Your task to perform on an android device: Open calendar and show me the first week of next month Image 0: 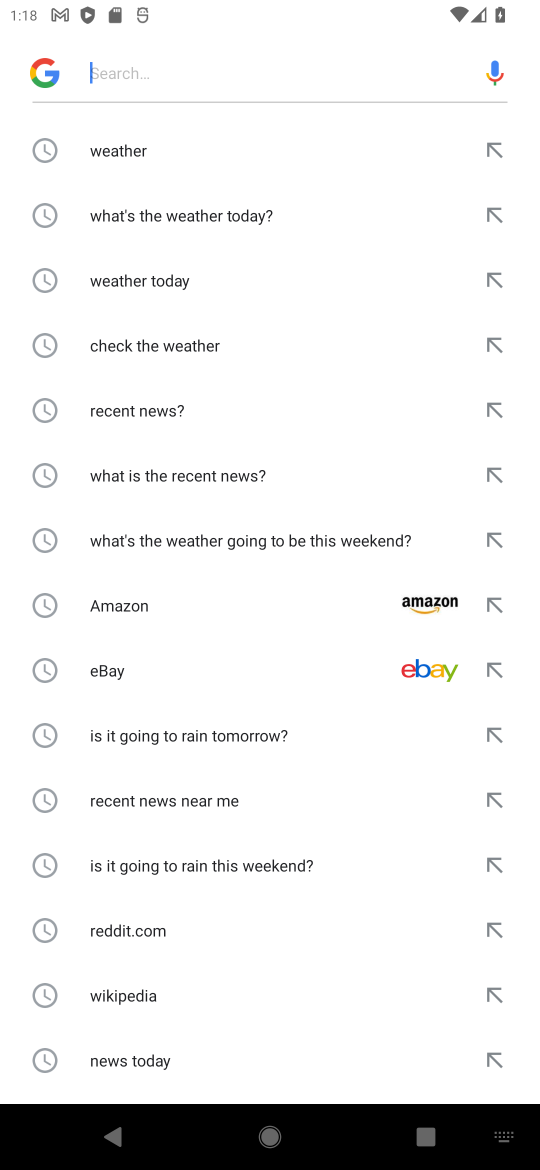
Step 0: press home button
Your task to perform on an android device: Open calendar and show me the first week of next month Image 1: 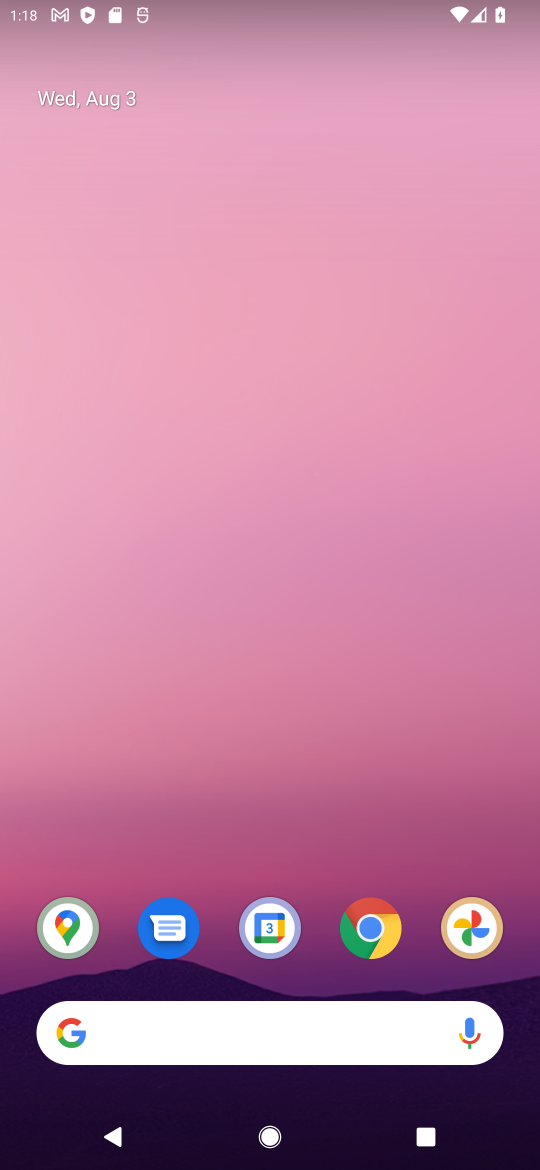
Step 1: drag from (369, 832) to (253, 206)
Your task to perform on an android device: Open calendar and show me the first week of next month Image 2: 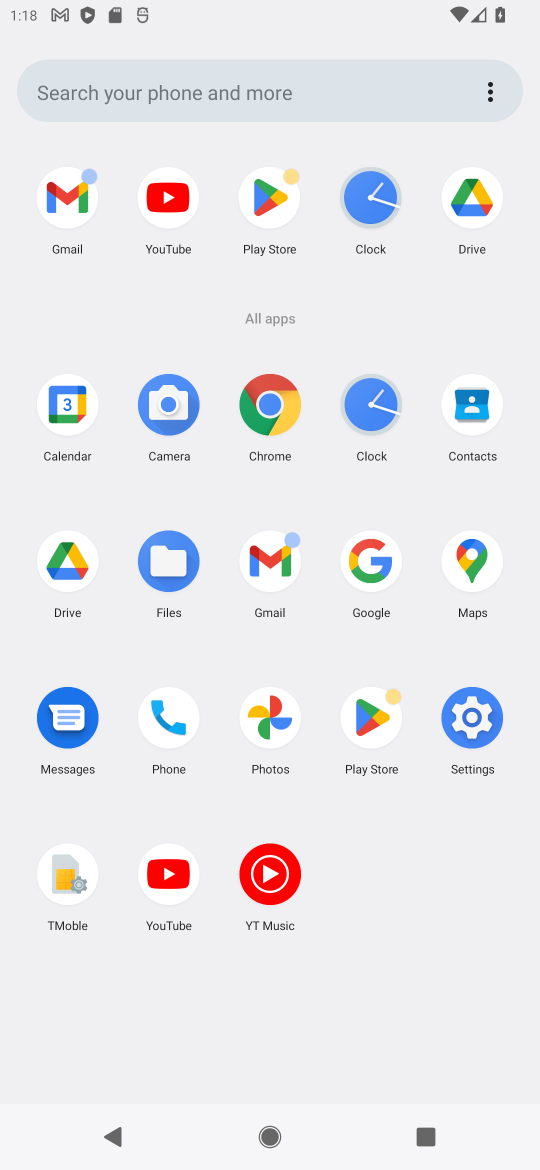
Step 2: click (57, 417)
Your task to perform on an android device: Open calendar and show me the first week of next month Image 3: 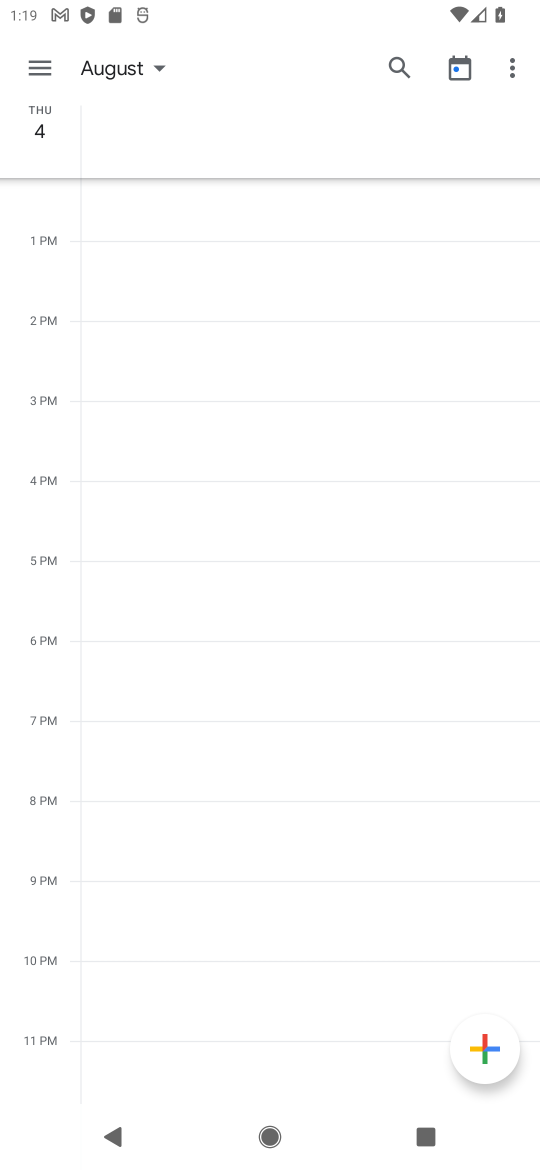
Step 3: click (38, 65)
Your task to perform on an android device: Open calendar and show me the first week of next month Image 4: 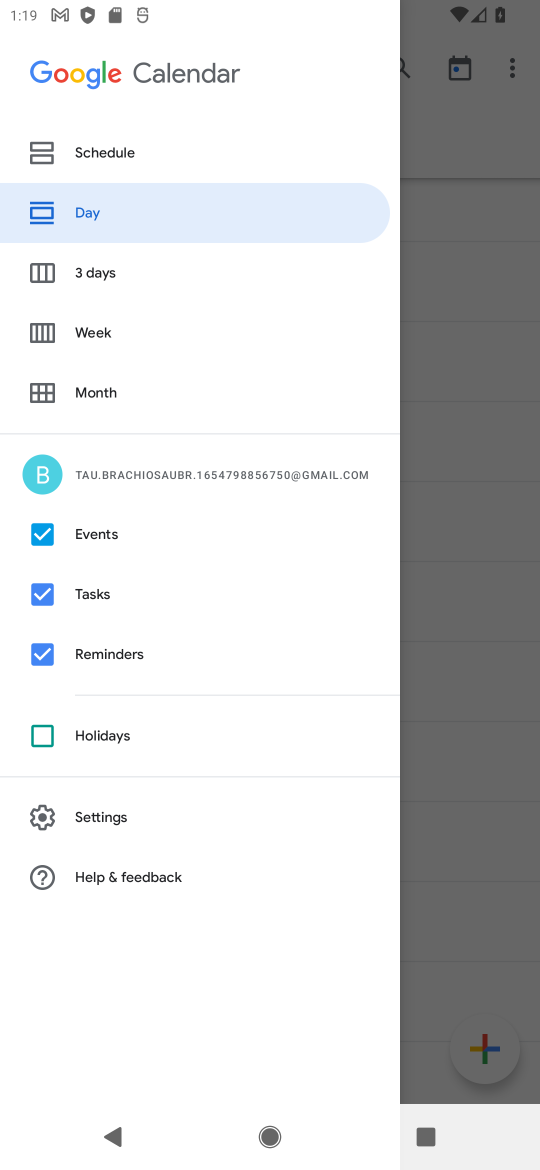
Step 4: click (143, 325)
Your task to perform on an android device: Open calendar and show me the first week of next month Image 5: 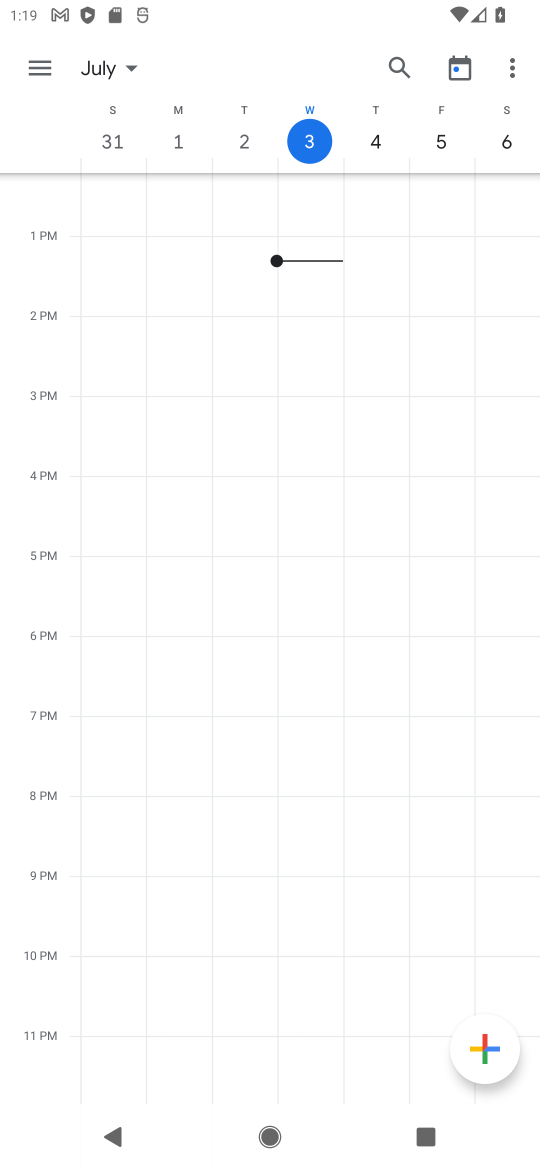
Step 5: click (130, 64)
Your task to perform on an android device: Open calendar and show me the first week of next month Image 6: 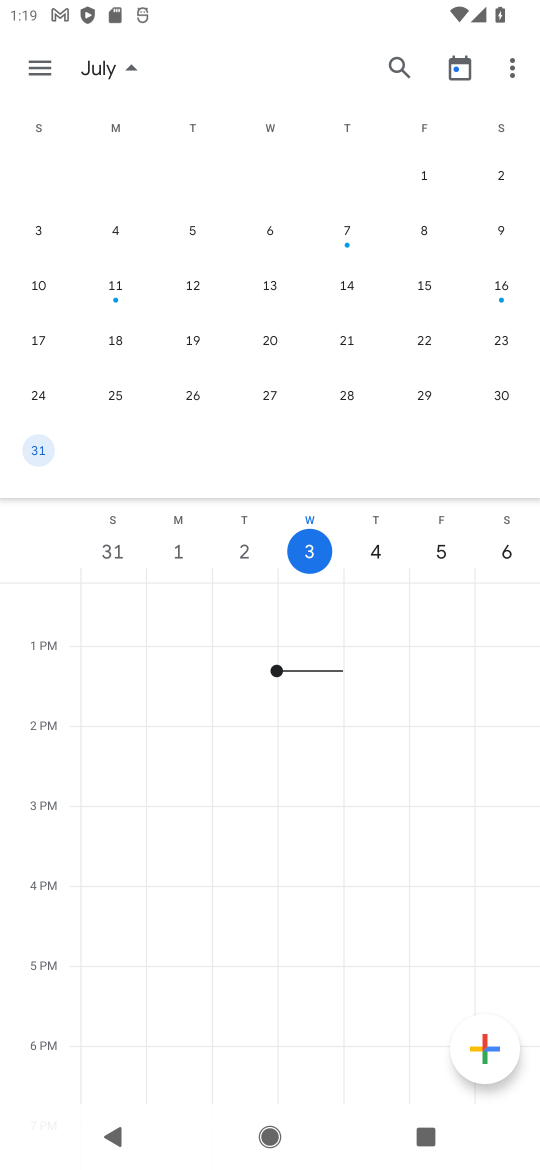
Step 6: drag from (460, 374) to (14, 357)
Your task to perform on an android device: Open calendar and show me the first week of next month Image 7: 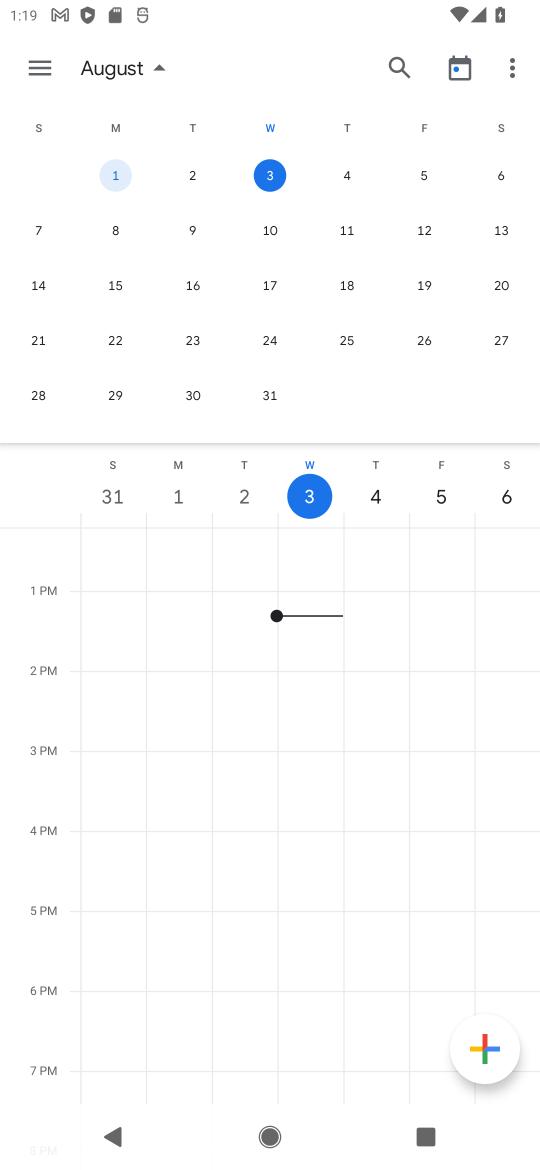
Step 7: drag from (509, 382) to (0, 385)
Your task to perform on an android device: Open calendar and show me the first week of next month Image 8: 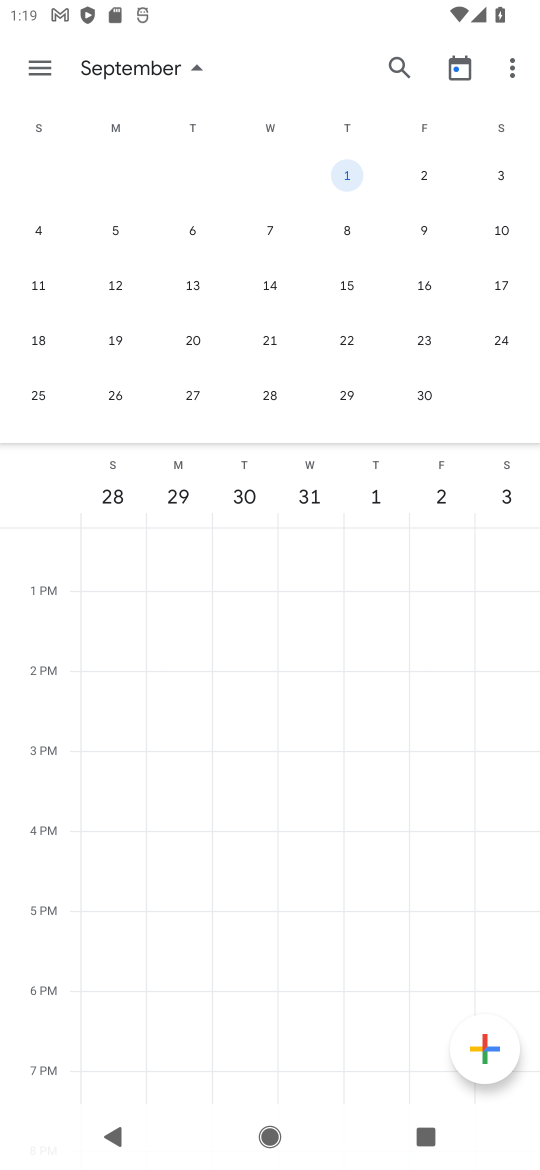
Step 8: click (281, 220)
Your task to perform on an android device: Open calendar and show me the first week of next month Image 9: 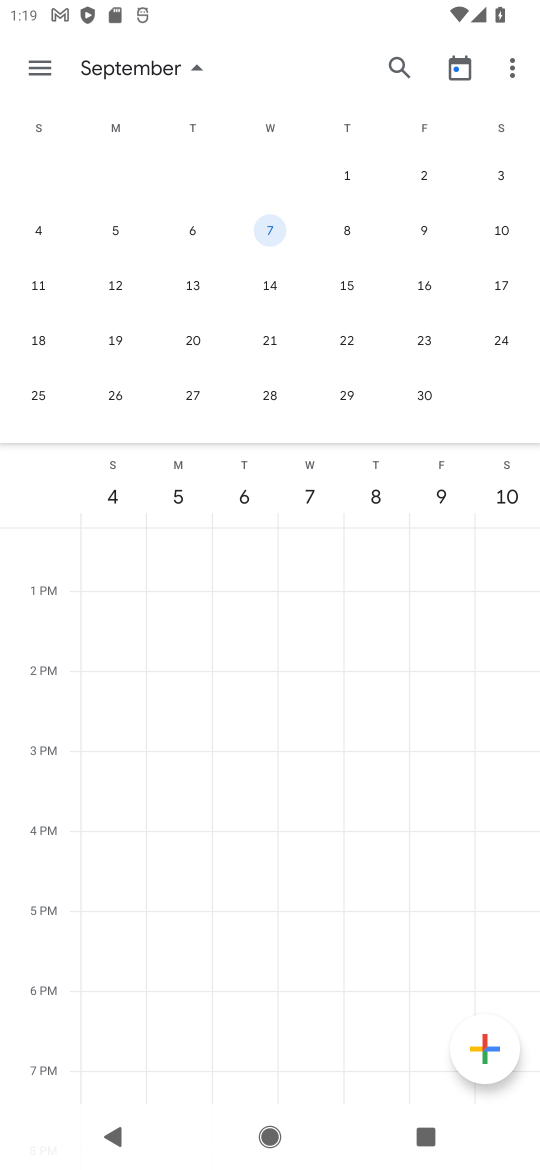
Step 9: task complete